Your task to perform on an android device: Open the web browser Image 0: 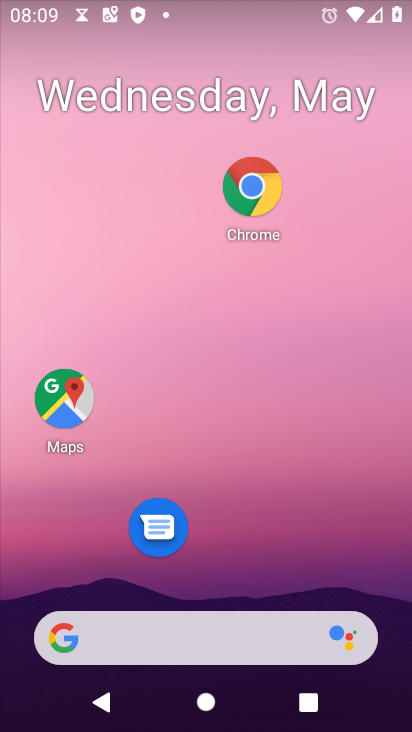
Step 0: click (258, 183)
Your task to perform on an android device: Open the web browser Image 1: 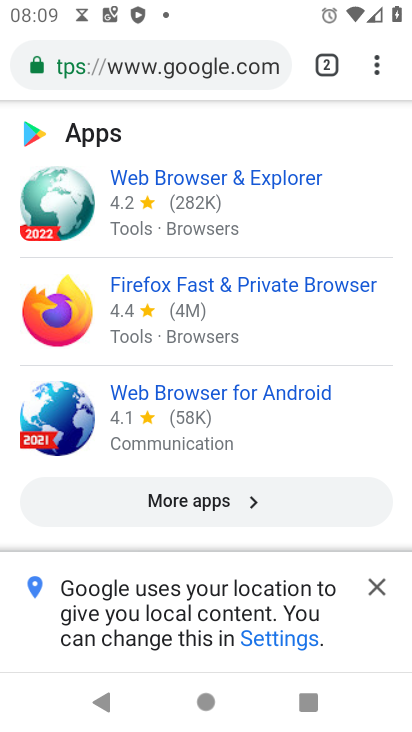
Step 1: task complete